Your task to perform on an android device: toggle data saver in the chrome app Image 0: 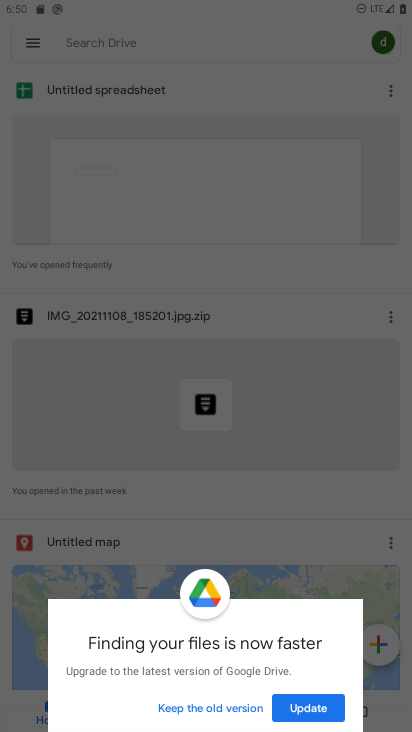
Step 0: press home button
Your task to perform on an android device: toggle data saver in the chrome app Image 1: 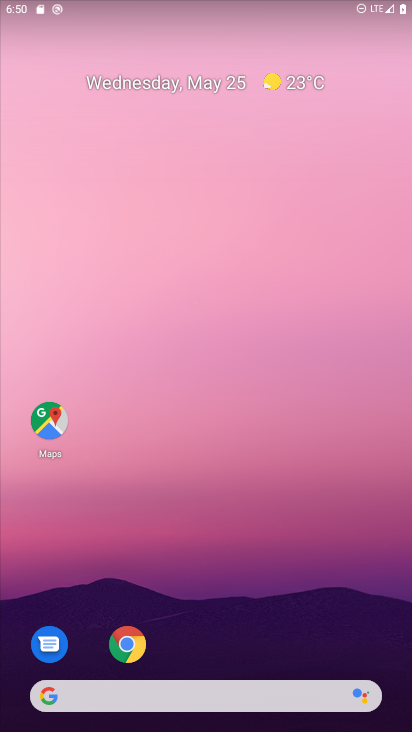
Step 1: drag from (342, 619) to (236, 1)
Your task to perform on an android device: toggle data saver in the chrome app Image 2: 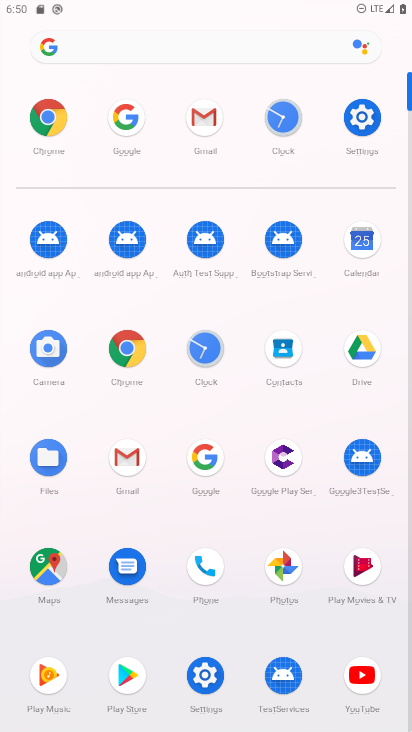
Step 2: click (51, 142)
Your task to perform on an android device: toggle data saver in the chrome app Image 3: 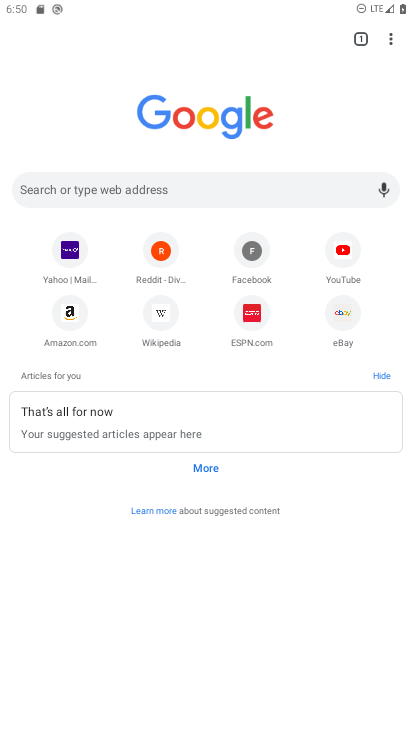
Step 3: click (389, 33)
Your task to perform on an android device: toggle data saver in the chrome app Image 4: 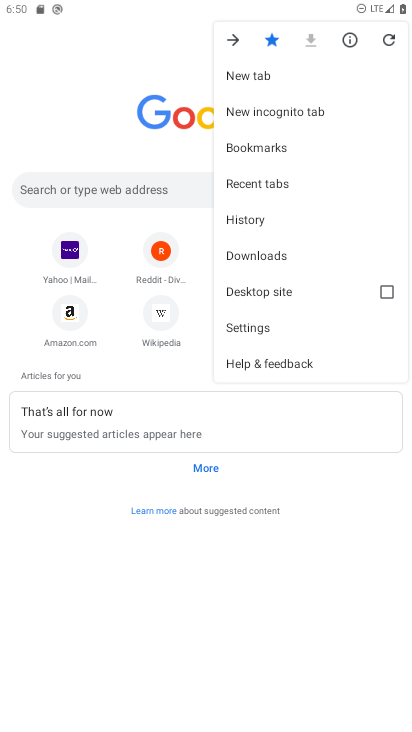
Step 4: click (249, 322)
Your task to perform on an android device: toggle data saver in the chrome app Image 5: 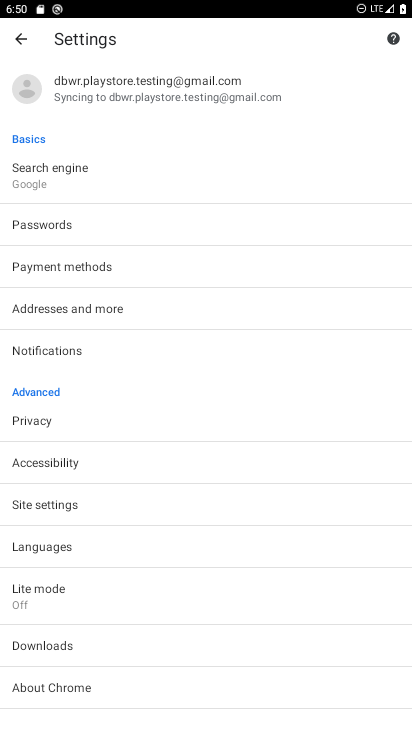
Step 5: click (77, 587)
Your task to perform on an android device: toggle data saver in the chrome app Image 6: 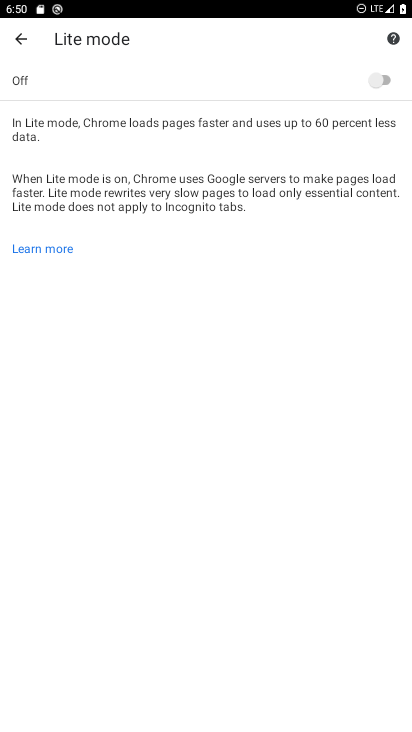
Step 6: click (366, 65)
Your task to perform on an android device: toggle data saver in the chrome app Image 7: 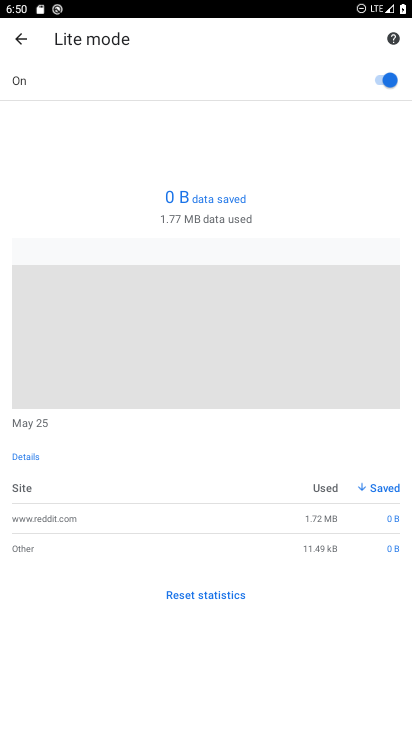
Step 7: task complete